Your task to perform on an android device: see tabs open on other devices in the chrome app Image 0: 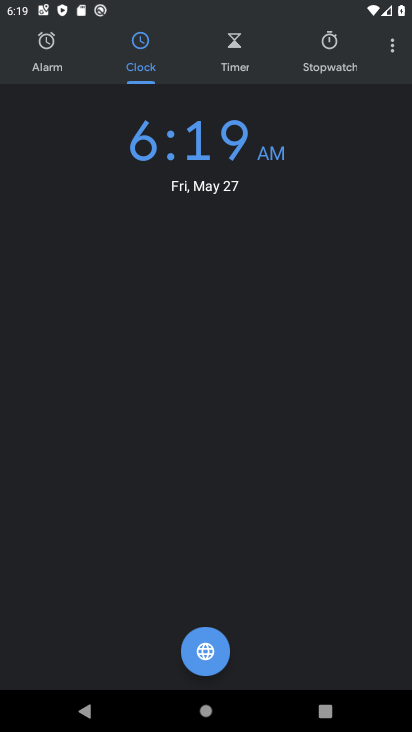
Step 0: press home button
Your task to perform on an android device: see tabs open on other devices in the chrome app Image 1: 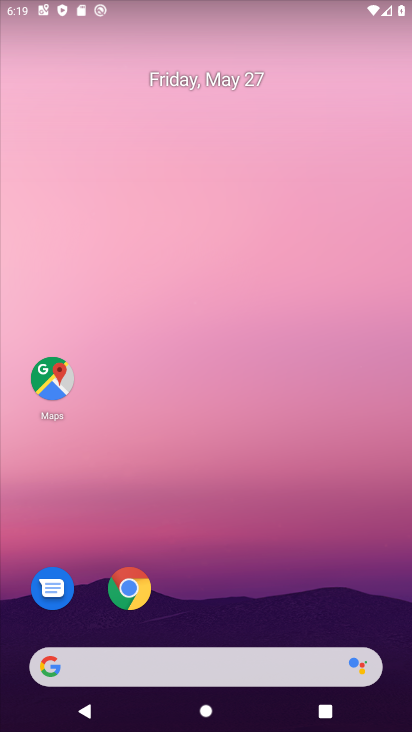
Step 1: click (130, 587)
Your task to perform on an android device: see tabs open on other devices in the chrome app Image 2: 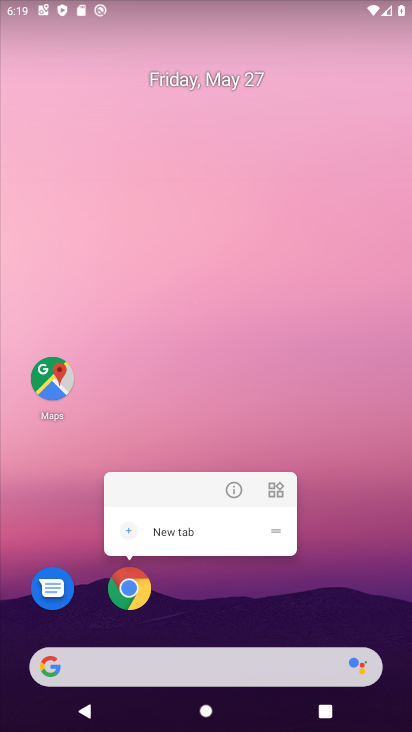
Step 2: click (130, 587)
Your task to perform on an android device: see tabs open on other devices in the chrome app Image 3: 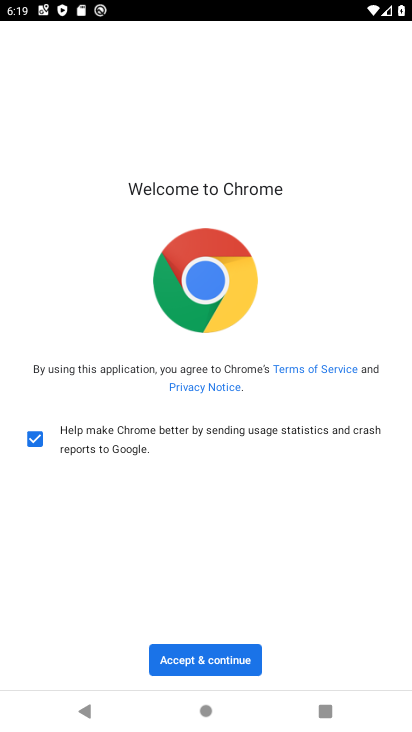
Step 3: click (216, 664)
Your task to perform on an android device: see tabs open on other devices in the chrome app Image 4: 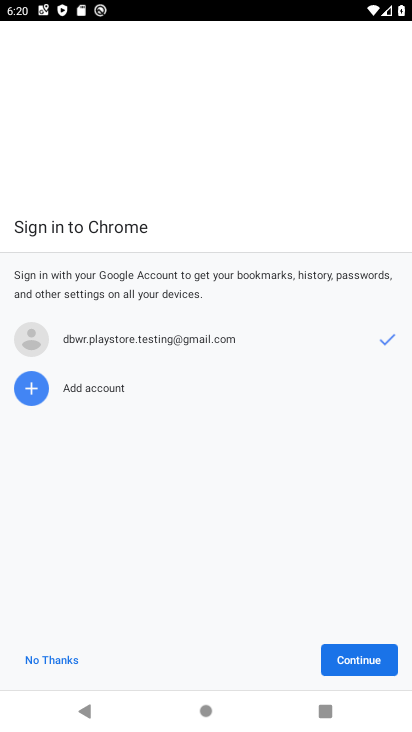
Step 4: click (383, 668)
Your task to perform on an android device: see tabs open on other devices in the chrome app Image 5: 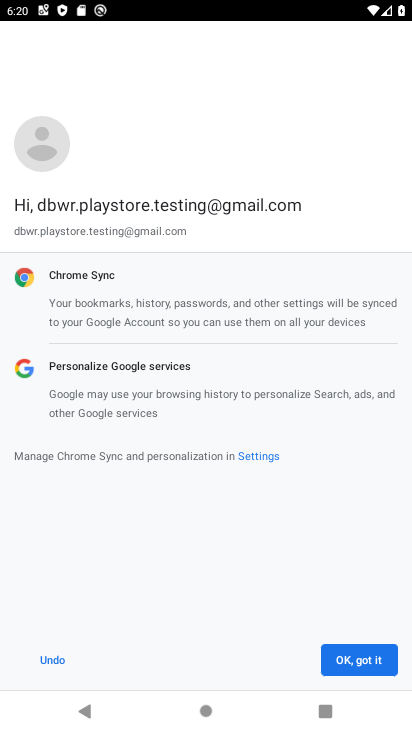
Step 5: click (383, 668)
Your task to perform on an android device: see tabs open on other devices in the chrome app Image 6: 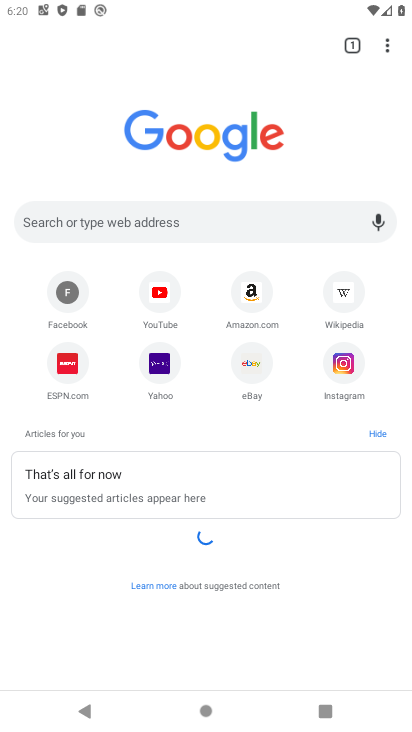
Step 6: drag from (385, 48) to (224, 209)
Your task to perform on an android device: see tabs open on other devices in the chrome app Image 7: 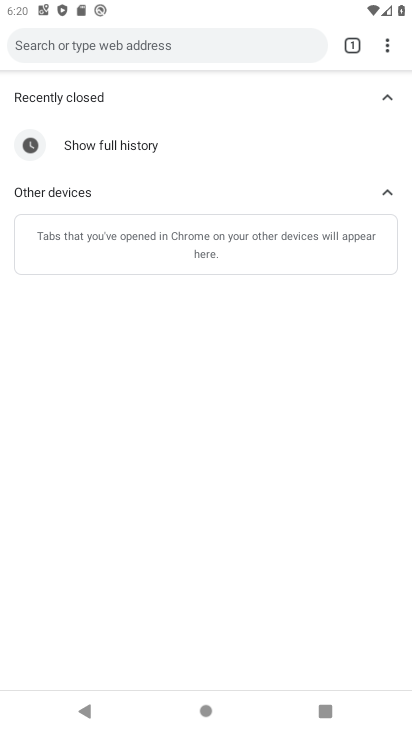
Step 7: click (384, 201)
Your task to perform on an android device: see tabs open on other devices in the chrome app Image 8: 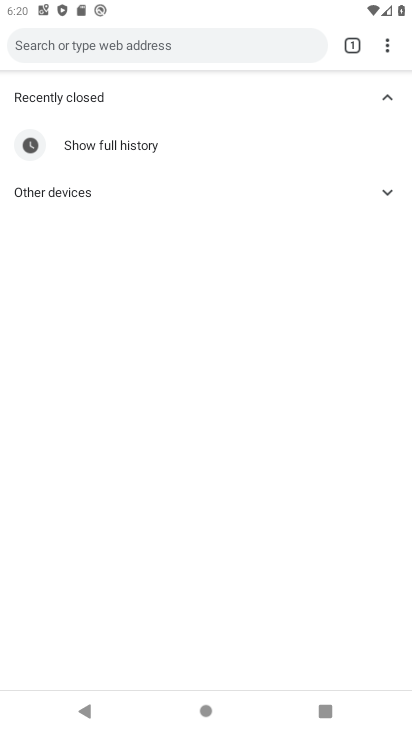
Step 8: click (384, 187)
Your task to perform on an android device: see tabs open on other devices in the chrome app Image 9: 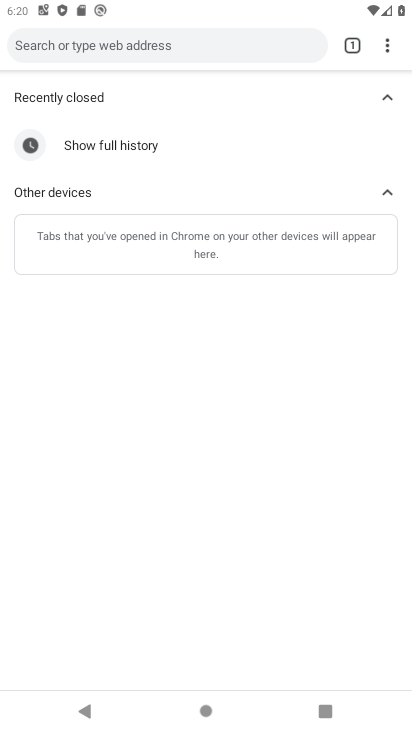
Step 9: task complete